Your task to perform on an android device: turn off notifications in google photos Image 0: 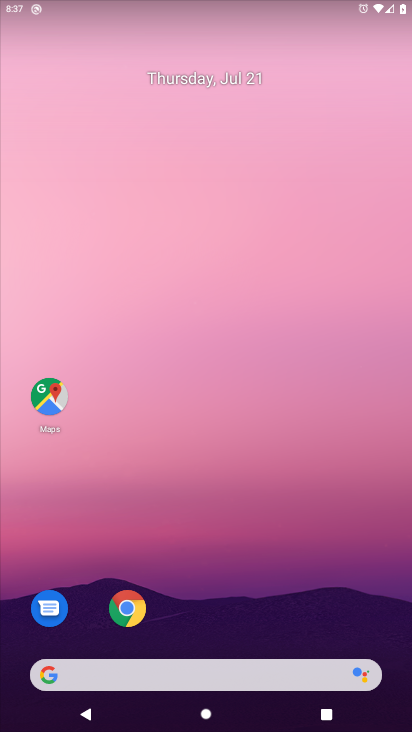
Step 0: drag from (23, 691) to (255, 130)
Your task to perform on an android device: turn off notifications in google photos Image 1: 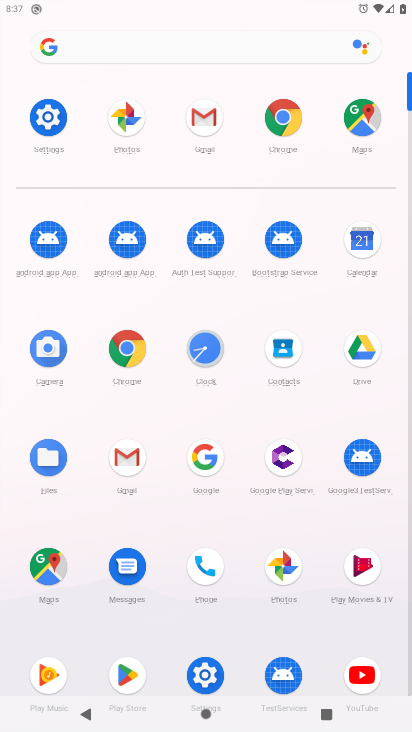
Step 1: click (290, 566)
Your task to perform on an android device: turn off notifications in google photos Image 2: 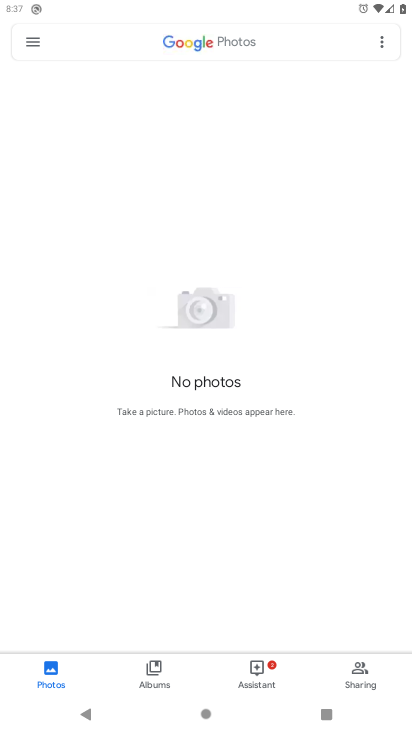
Step 2: click (35, 30)
Your task to perform on an android device: turn off notifications in google photos Image 3: 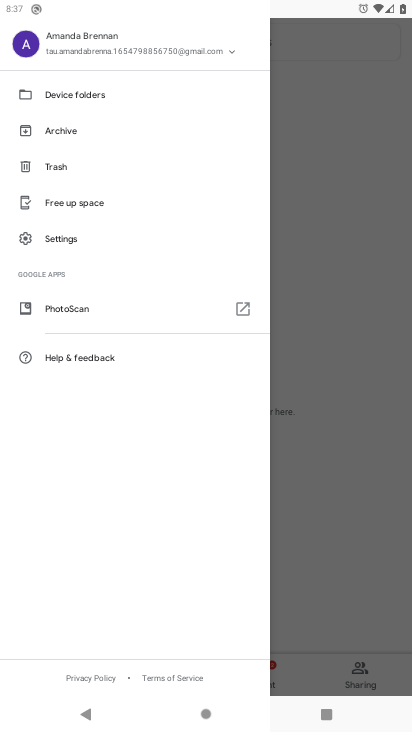
Step 3: click (56, 235)
Your task to perform on an android device: turn off notifications in google photos Image 4: 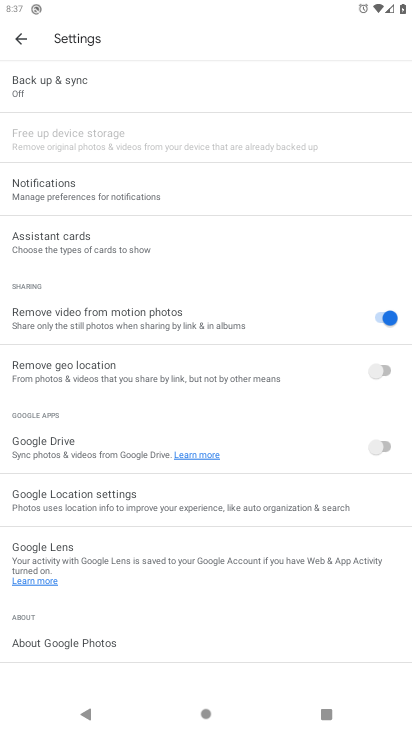
Step 4: click (70, 185)
Your task to perform on an android device: turn off notifications in google photos Image 5: 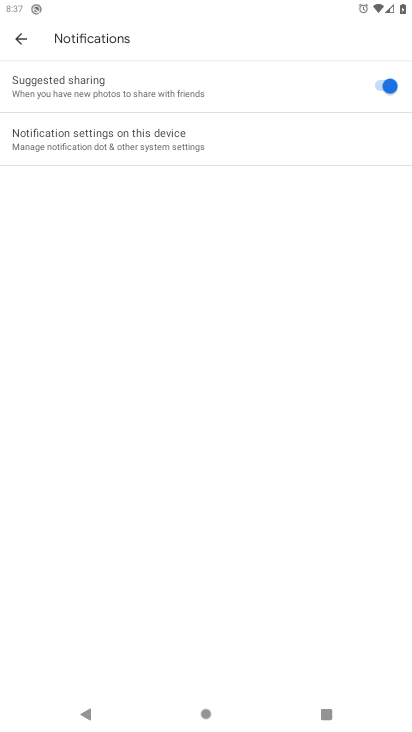
Step 5: click (102, 139)
Your task to perform on an android device: turn off notifications in google photos Image 6: 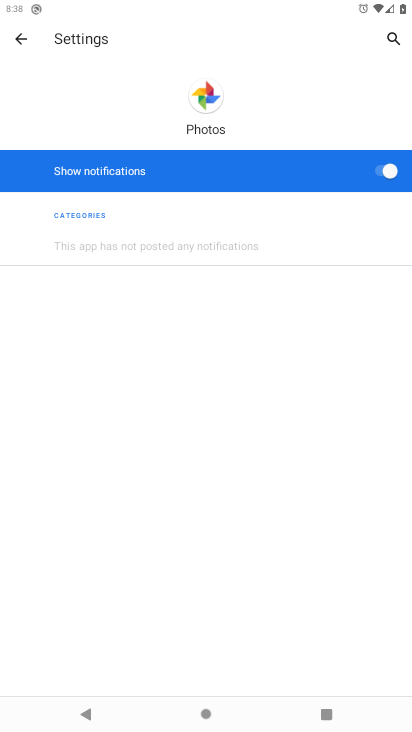
Step 6: click (383, 171)
Your task to perform on an android device: turn off notifications in google photos Image 7: 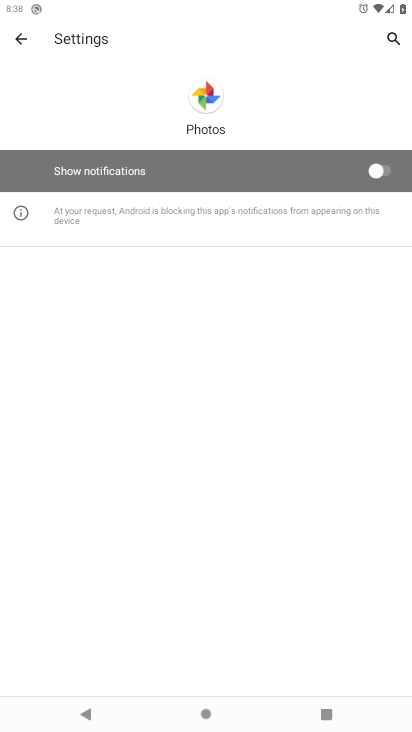
Step 7: task complete